Your task to perform on an android device: star an email in the gmail app Image 0: 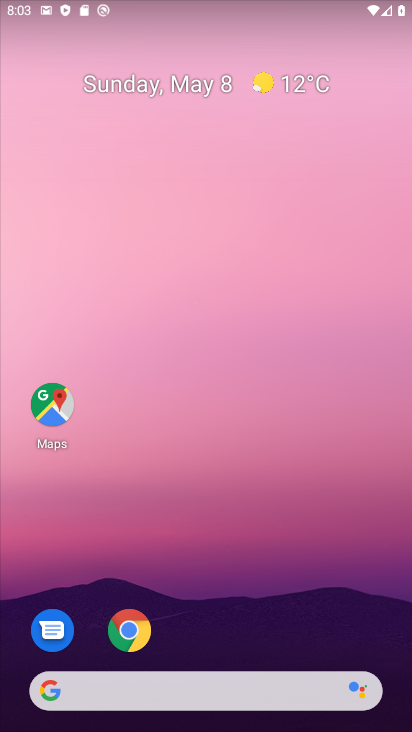
Step 0: drag from (247, 635) to (242, 140)
Your task to perform on an android device: star an email in the gmail app Image 1: 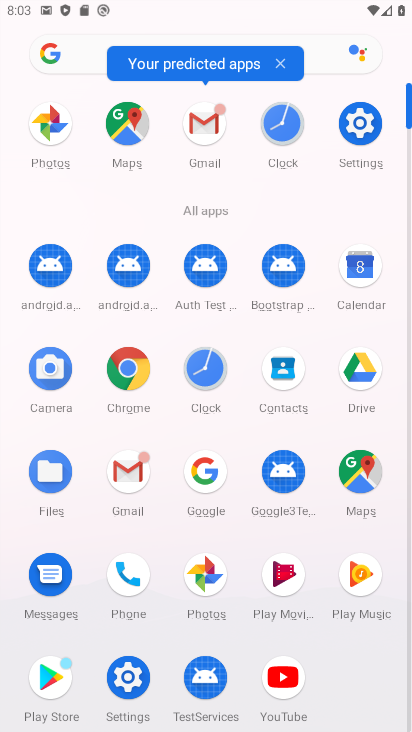
Step 1: click (206, 127)
Your task to perform on an android device: star an email in the gmail app Image 2: 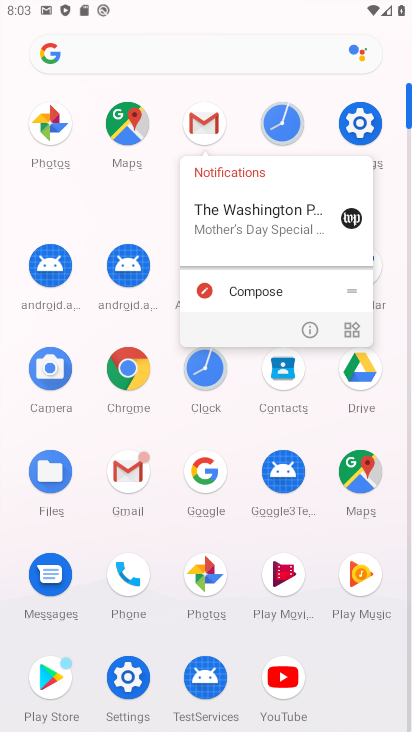
Step 2: click (215, 142)
Your task to perform on an android device: star an email in the gmail app Image 3: 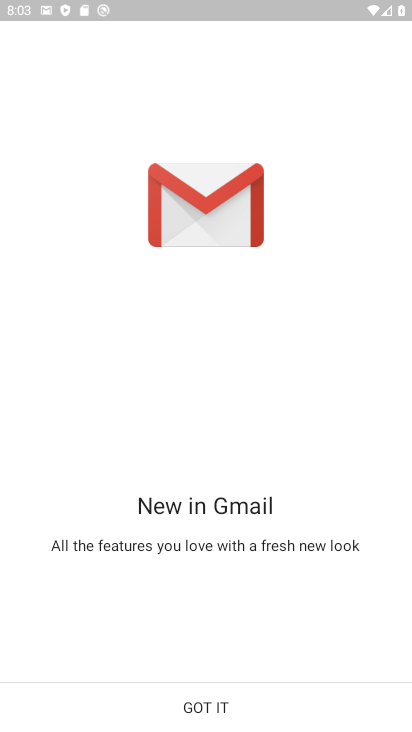
Step 3: click (207, 705)
Your task to perform on an android device: star an email in the gmail app Image 4: 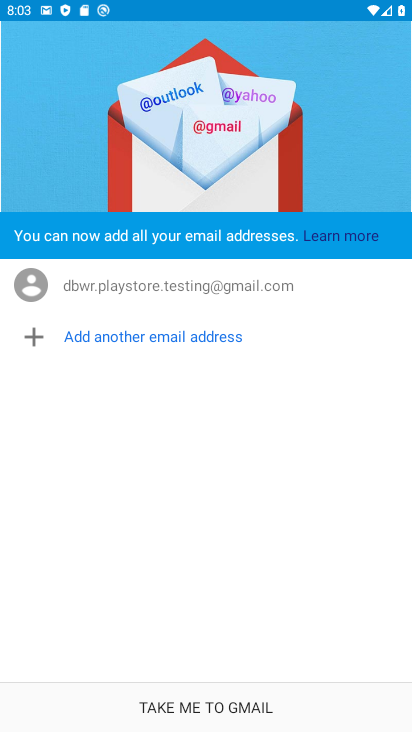
Step 4: click (207, 696)
Your task to perform on an android device: star an email in the gmail app Image 5: 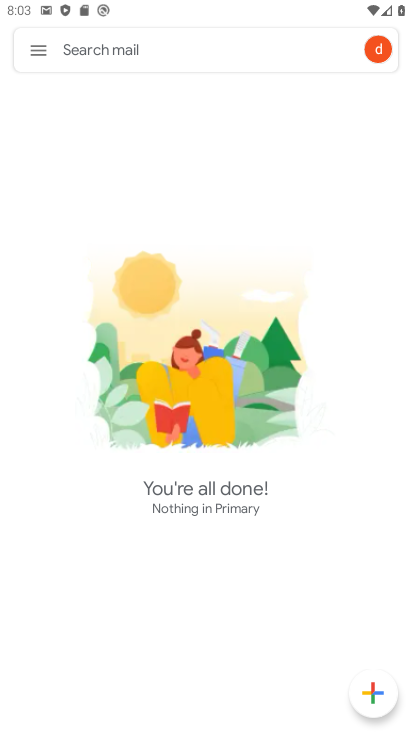
Step 5: click (38, 49)
Your task to perform on an android device: star an email in the gmail app Image 6: 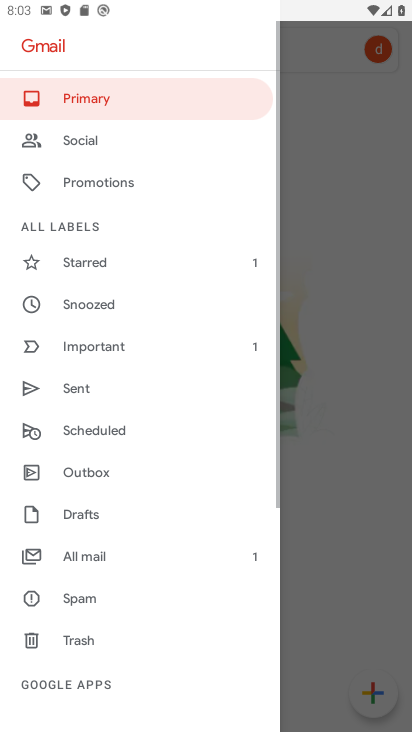
Step 6: click (68, 561)
Your task to perform on an android device: star an email in the gmail app Image 7: 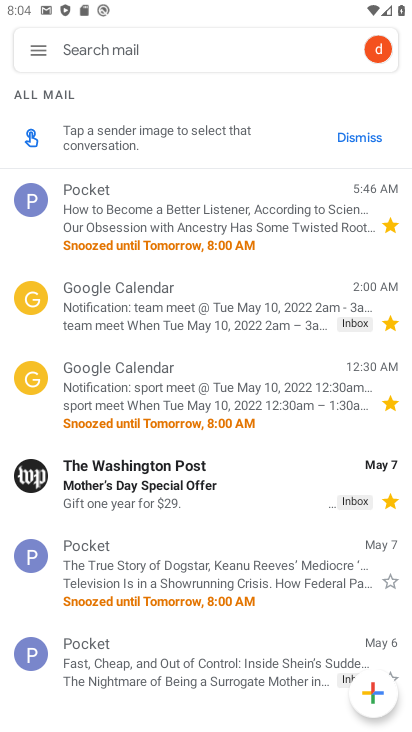
Step 7: click (390, 585)
Your task to perform on an android device: star an email in the gmail app Image 8: 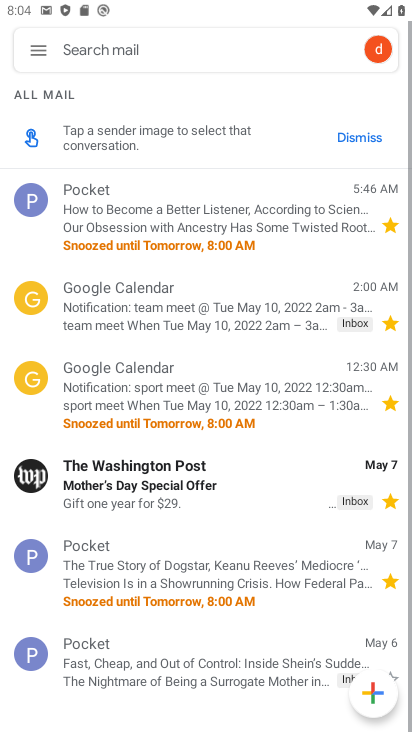
Step 8: task complete